Your task to perform on an android device: choose inbox layout in the gmail app Image 0: 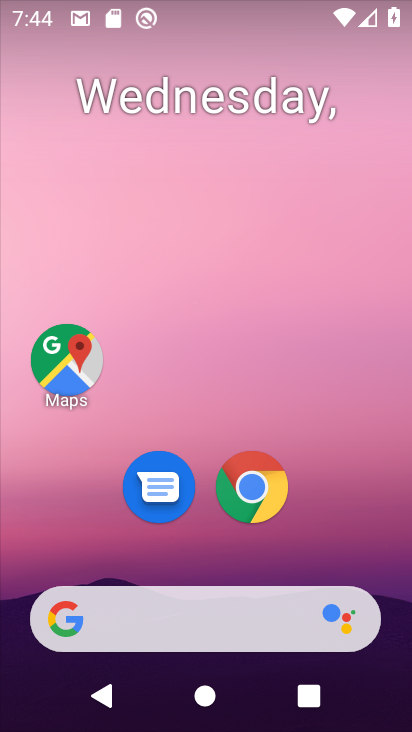
Step 0: drag from (332, 570) to (167, 266)
Your task to perform on an android device: choose inbox layout in the gmail app Image 1: 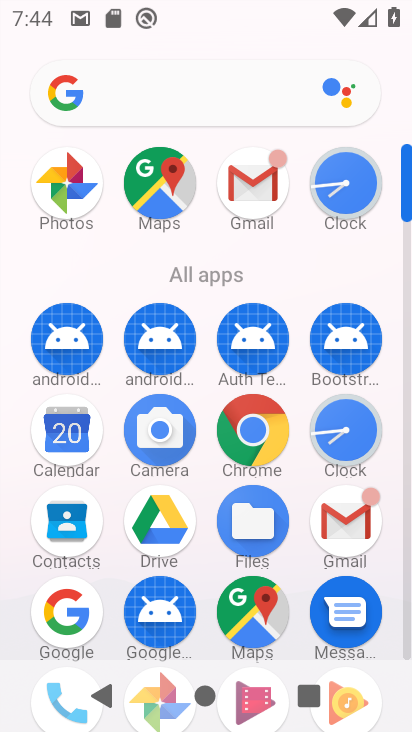
Step 1: drag from (236, 358) to (22, 366)
Your task to perform on an android device: choose inbox layout in the gmail app Image 2: 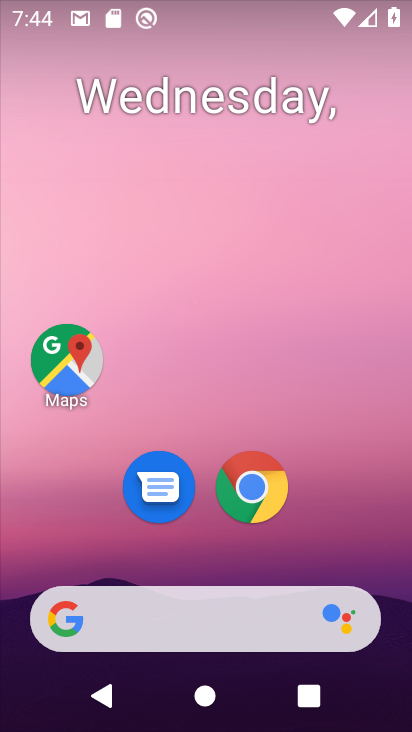
Step 2: click (341, 516)
Your task to perform on an android device: choose inbox layout in the gmail app Image 3: 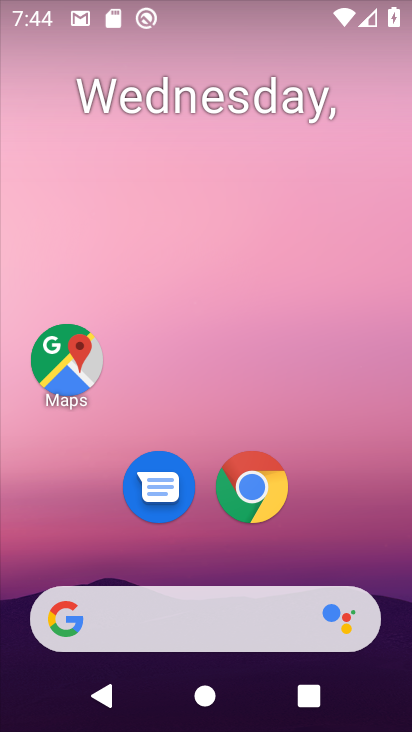
Step 3: drag from (337, 699) to (319, 179)
Your task to perform on an android device: choose inbox layout in the gmail app Image 4: 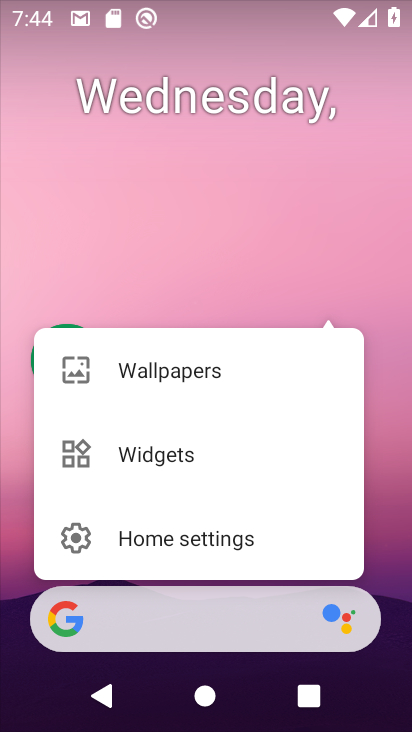
Step 4: drag from (342, 509) to (276, 94)
Your task to perform on an android device: choose inbox layout in the gmail app Image 5: 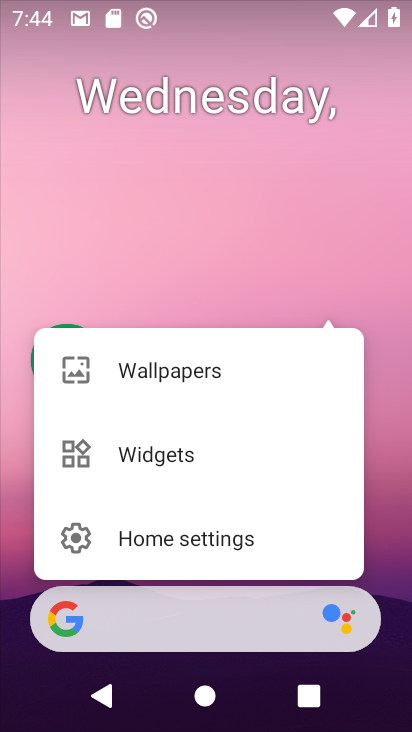
Step 5: drag from (344, 466) to (216, 10)
Your task to perform on an android device: choose inbox layout in the gmail app Image 6: 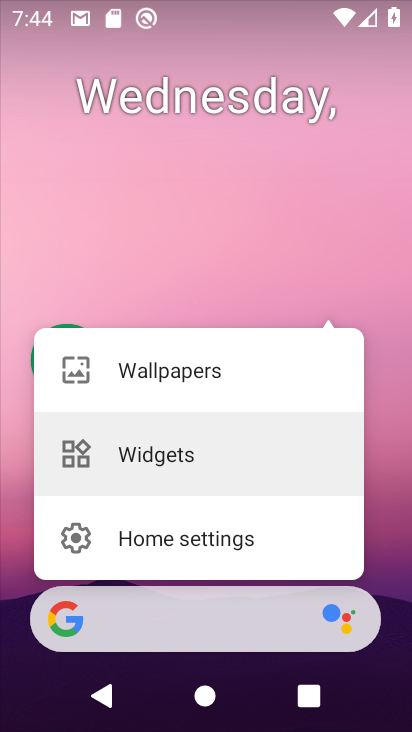
Step 6: drag from (223, 62) to (285, 248)
Your task to perform on an android device: choose inbox layout in the gmail app Image 7: 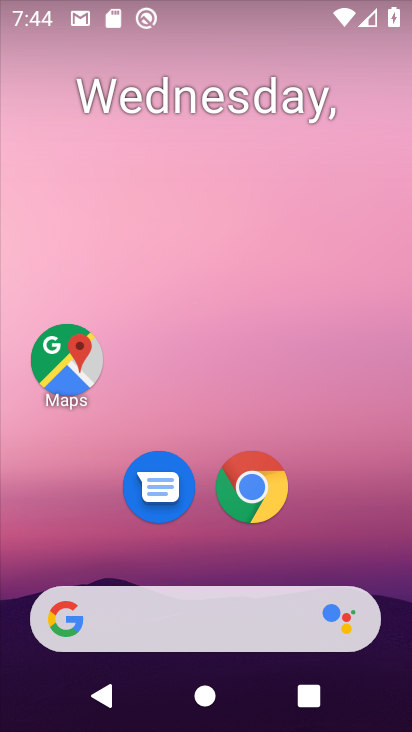
Step 7: drag from (326, 499) to (215, 54)
Your task to perform on an android device: choose inbox layout in the gmail app Image 8: 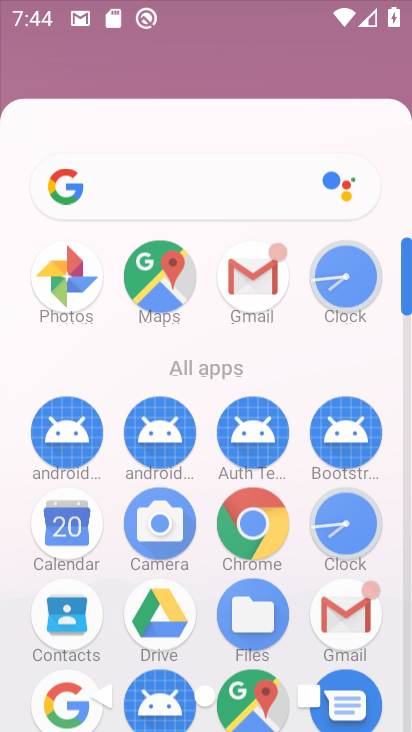
Step 8: drag from (112, 384) to (51, 93)
Your task to perform on an android device: choose inbox layout in the gmail app Image 9: 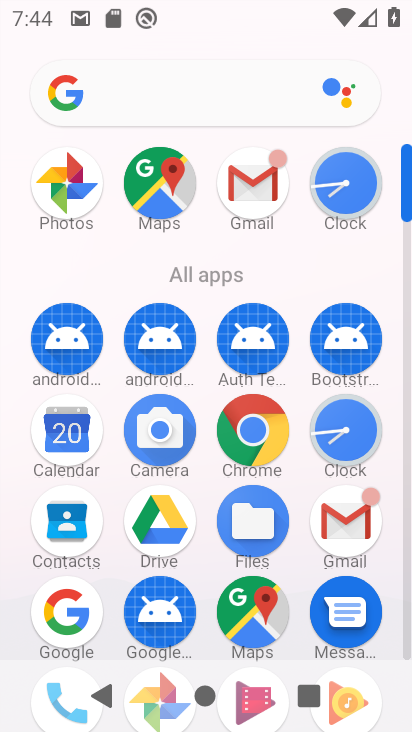
Step 9: click (347, 521)
Your task to perform on an android device: choose inbox layout in the gmail app Image 10: 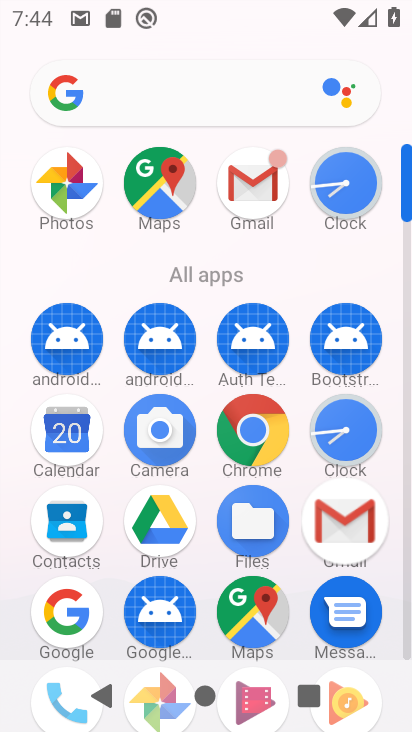
Step 10: click (342, 520)
Your task to perform on an android device: choose inbox layout in the gmail app Image 11: 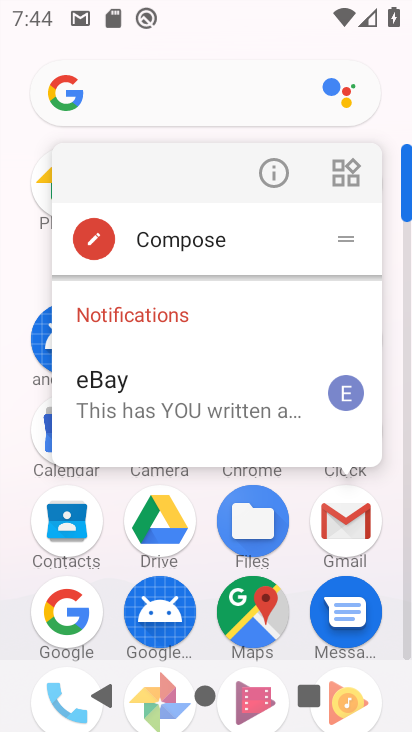
Step 11: click (341, 515)
Your task to perform on an android device: choose inbox layout in the gmail app Image 12: 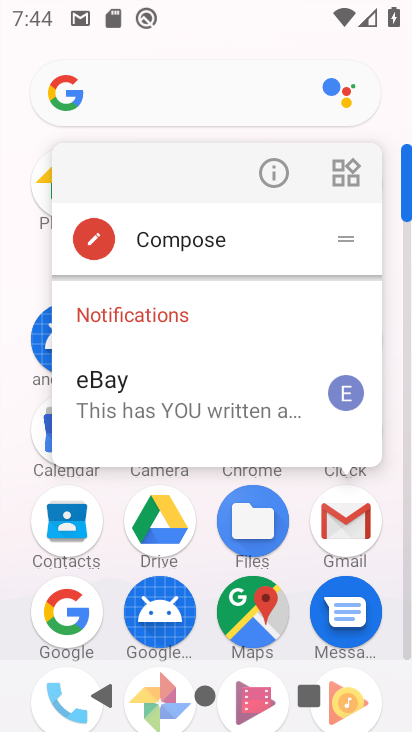
Step 12: click (341, 519)
Your task to perform on an android device: choose inbox layout in the gmail app Image 13: 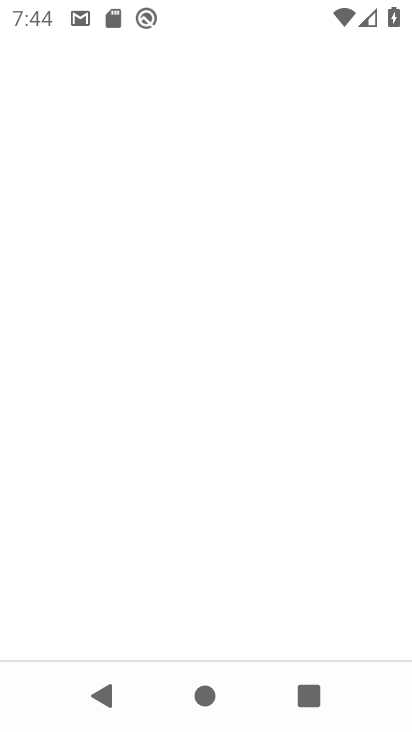
Step 13: click (338, 502)
Your task to perform on an android device: choose inbox layout in the gmail app Image 14: 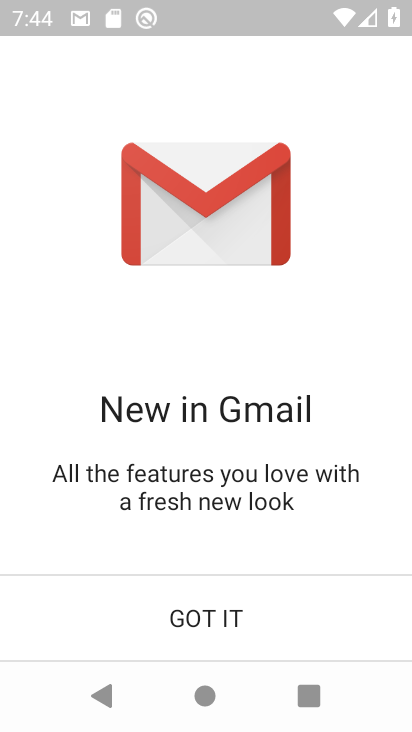
Step 14: click (182, 616)
Your task to perform on an android device: choose inbox layout in the gmail app Image 15: 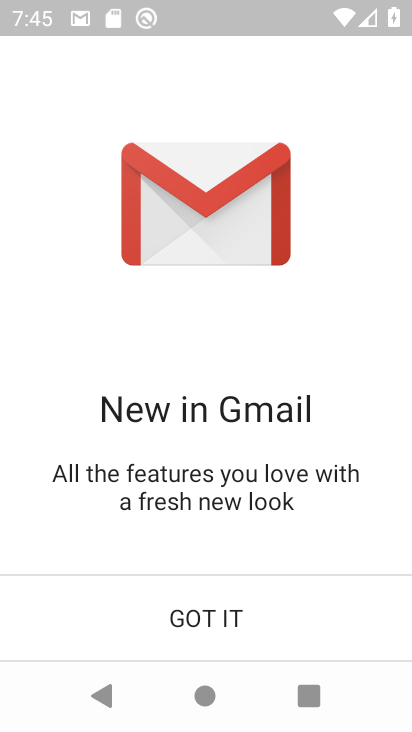
Step 15: click (189, 611)
Your task to perform on an android device: choose inbox layout in the gmail app Image 16: 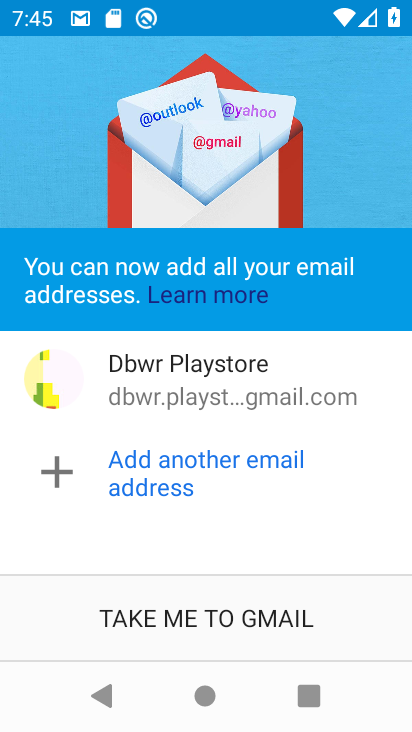
Step 16: click (190, 612)
Your task to perform on an android device: choose inbox layout in the gmail app Image 17: 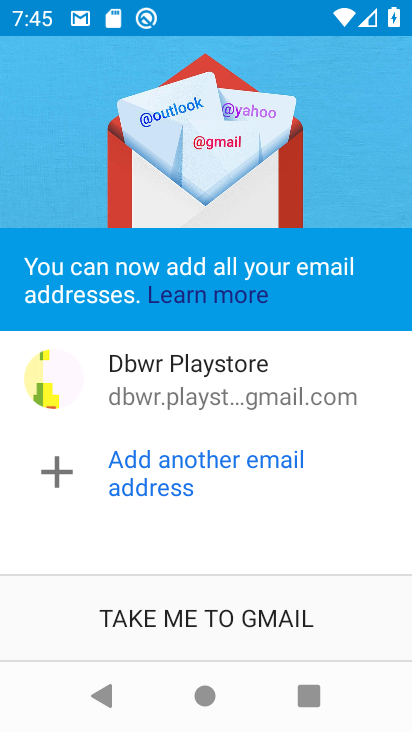
Step 17: click (191, 613)
Your task to perform on an android device: choose inbox layout in the gmail app Image 18: 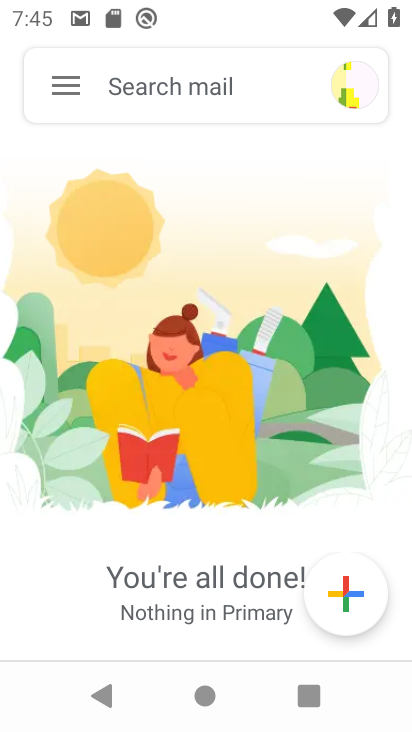
Step 18: click (73, 85)
Your task to perform on an android device: choose inbox layout in the gmail app Image 19: 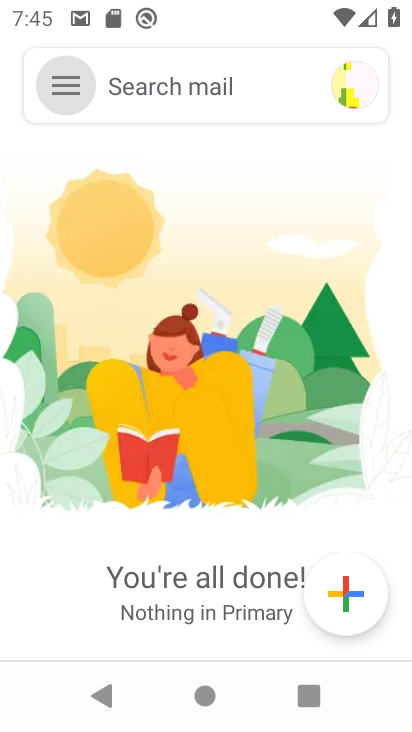
Step 19: click (73, 85)
Your task to perform on an android device: choose inbox layout in the gmail app Image 20: 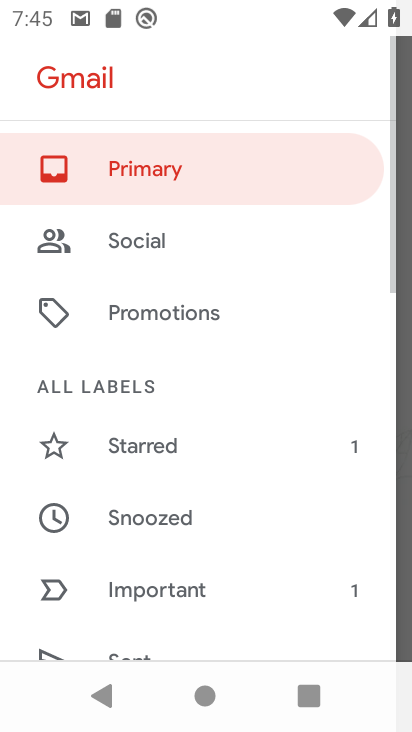
Step 20: drag from (138, 522) to (191, 282)
Your task to perform on an android device: choose inbox layout in the gmail app Image 21: 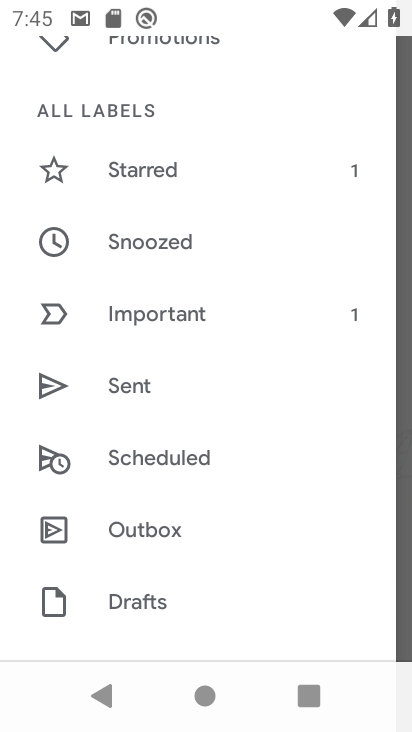
Step 21: drag from (249, 551) to (143, 209)
Your task to perform on an android device: choose inbox layout in the gmail app Image 22: 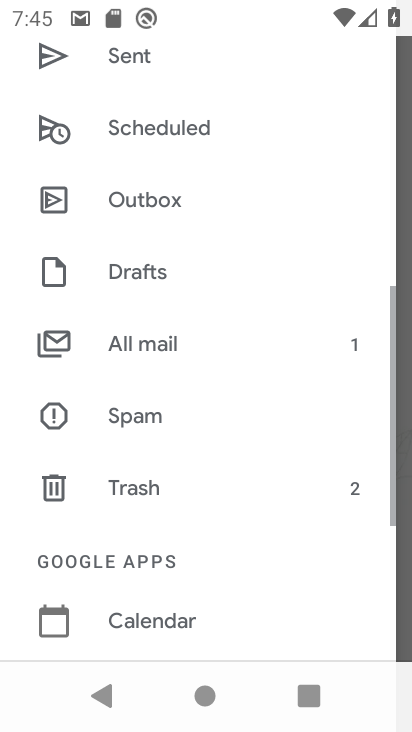
Step 22: drag from (122, 376) to (147, 248)
Your task to perform on an android device: choose inbox layout in the gmail app Image 23: 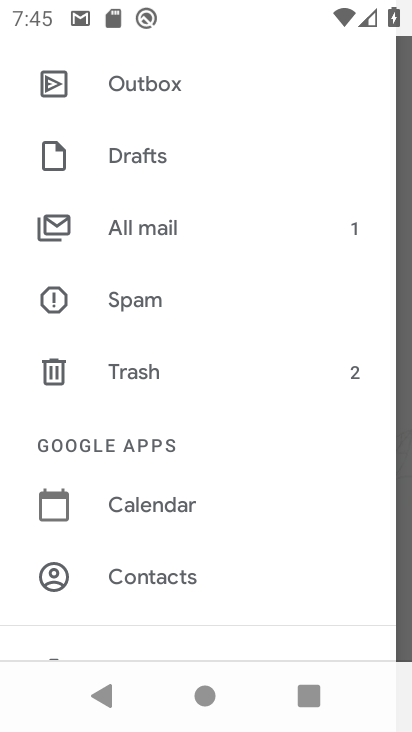
Step 23: click (136, 227)
Your task to perform on an android device: choose inbox layout in the gmail app Image 24: 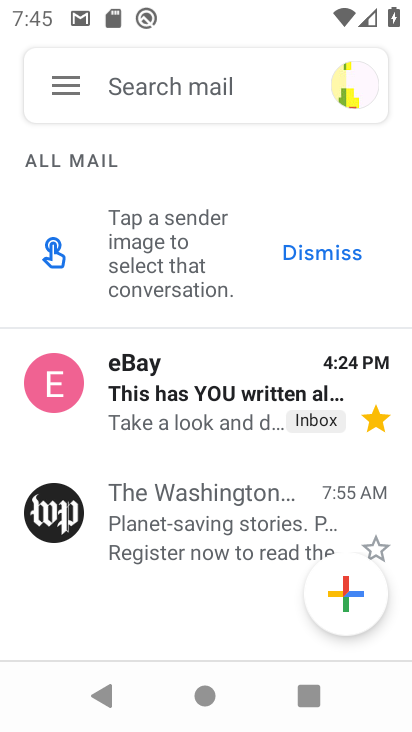
Step 24: press back button
Your task to perform on an android device: choose inbox layout in the gmail app Image 25: 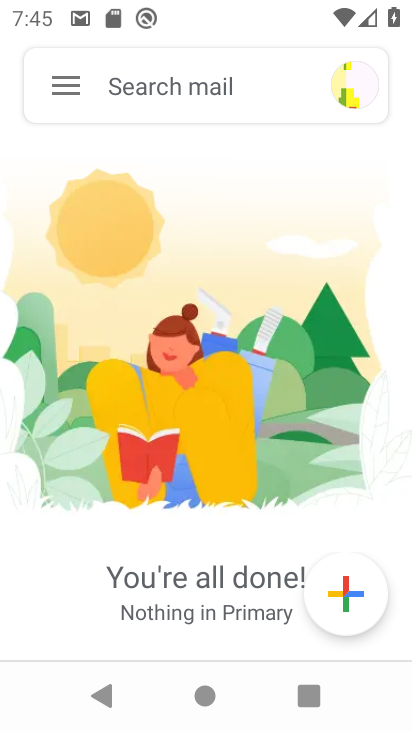
Step 25: click (63, 94)
Your task to perform on an android device: choose inbox layout in the gmail app Image 26: 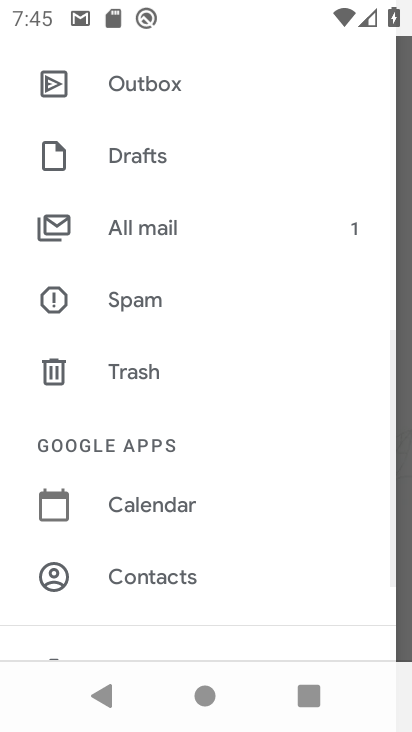
Step 26: drag from (150, 569) to (192, 153)
Your task to perform on an android device: choose inbox layout in the gmail app Image 27: 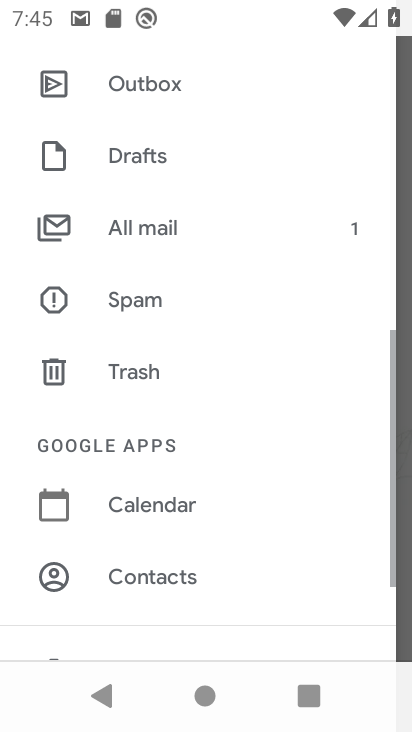
Step 27: drag from (221, 482) to (223, 118)
Your task to perform on an android device: choose inbox layout in the gmail app Image 28: 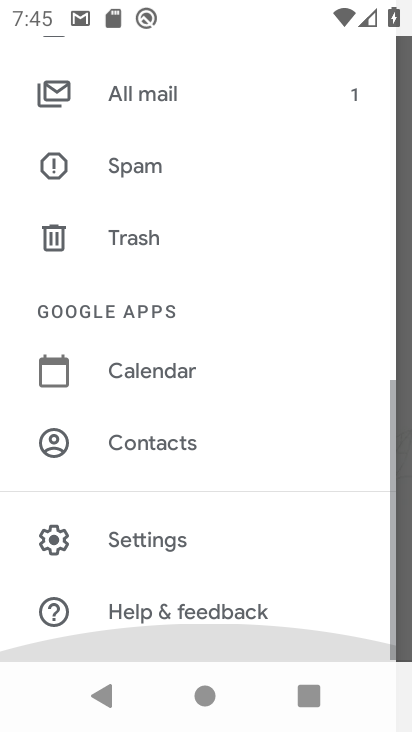
Step 28: drag from (251, 418) to (269, 158)
Your task to perform on an android device: choose inbox layout in the gmail app Image 29: 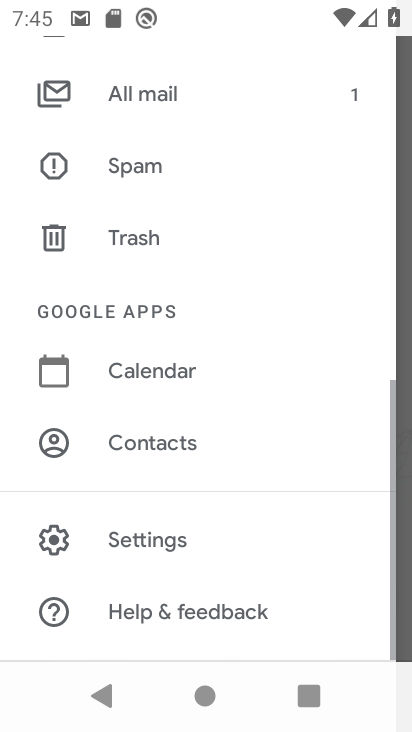
Step 29: click (155, 531)
Your task to perform on an android device: choose inbox layout in the gmail app Image 30: 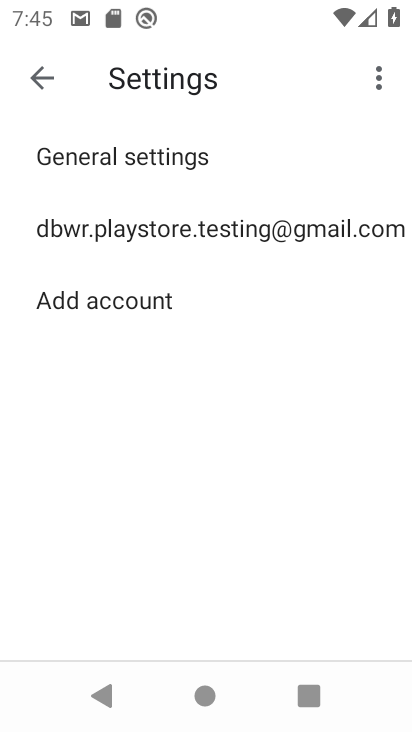
Step 30: click (211, 236)
Your task to perform on an android device: choose inbox layout in the gmail app Image 31: 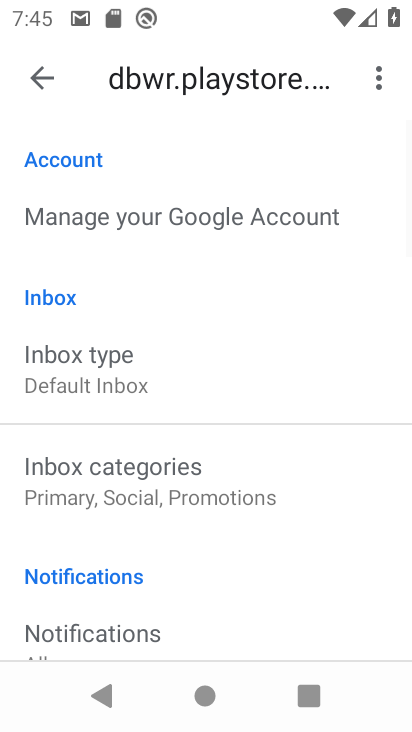
Step 31: click (77, 369)
Your task to perform on an android device: choose inbox layout in the gmail app Image 32: 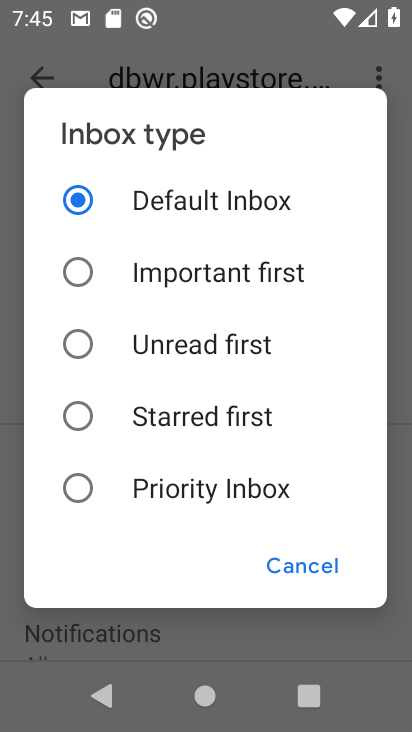
Step 32: click (298, 562)
Your task to perform on an android device: choose inbox layout in the gmail app Image 33: 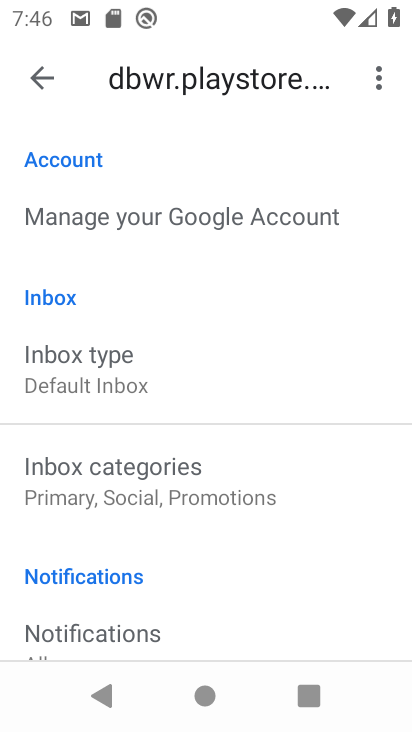
Step 33: click (93, 478)
Your task to perform on an android device: choose inbox layout in the gmail app Image 34: 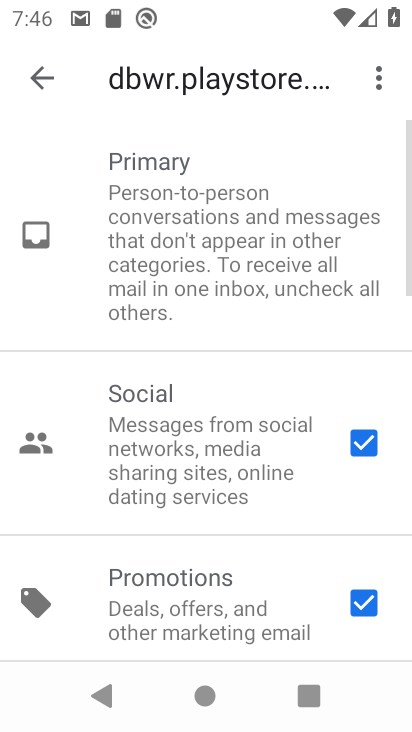
Step 34: drag from (149, 309) to (240, 162)
Your task to perform on an android device: choose inbox layout in the gmail app Image 35: 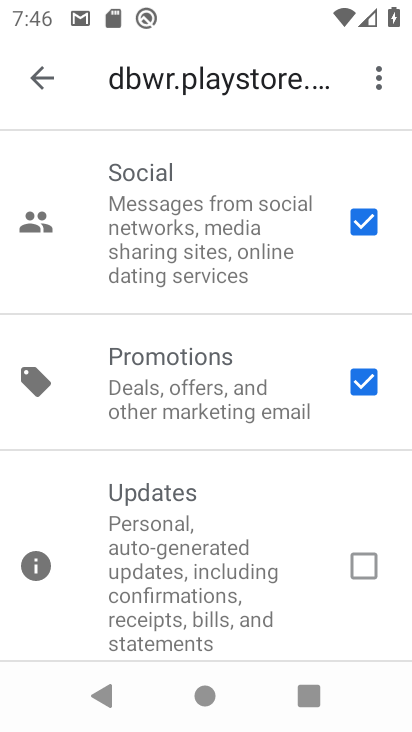
Step 35: click (41, 72)
Your task to perform on an android device: choose inbox layout in the gmail app Image 36: 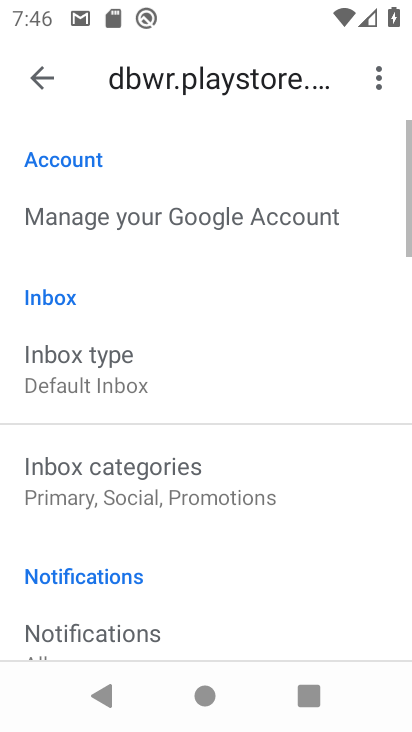
Step 36: drag from (105, 377) to (186, 273)
Your task to perform on an android device: choose inbox layout in the gmail app Image 37: 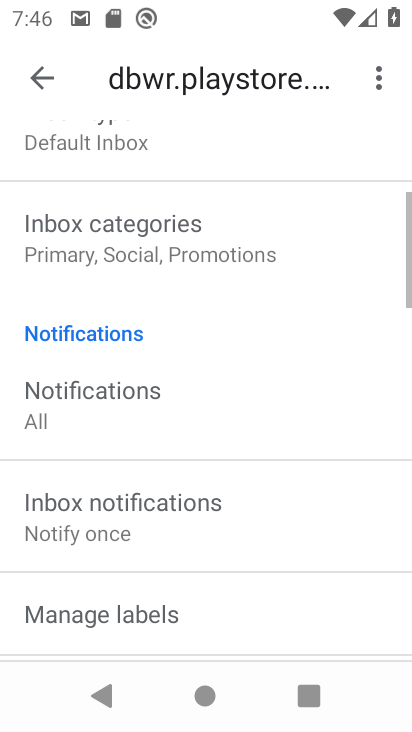
Step 37: drag from (188, 488) to (239, 186)
Your task to perform on an android device: choose inbox layout in the gmail app Image 38: 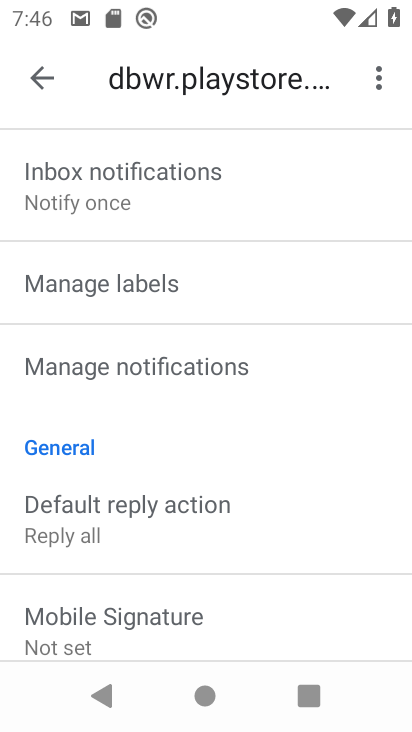
Step 38: click (35, 82)
Your task to perform on an android device: choose inbox layout in the gmail app Image 39: 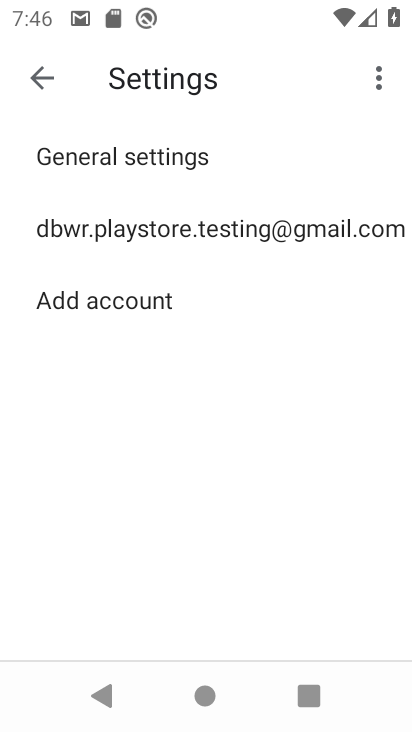
Step 39: click (35, 74)
Your task to perform on an android device: choose inbox layout in the gmail app Image 40: 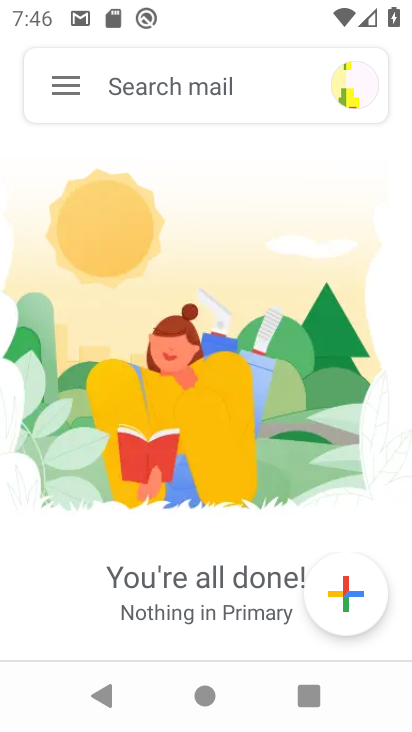
Step 40: click (58, 88)
Your task to perform on an android device: choose inbox layout in the gmail app Image 41: 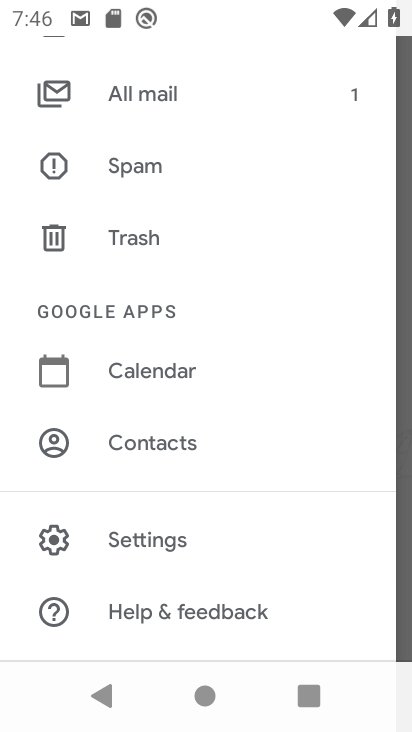
Step 41: click (122, 99)
Your task to perform on an android device: choose inbox layout in the gmail app Image 42: 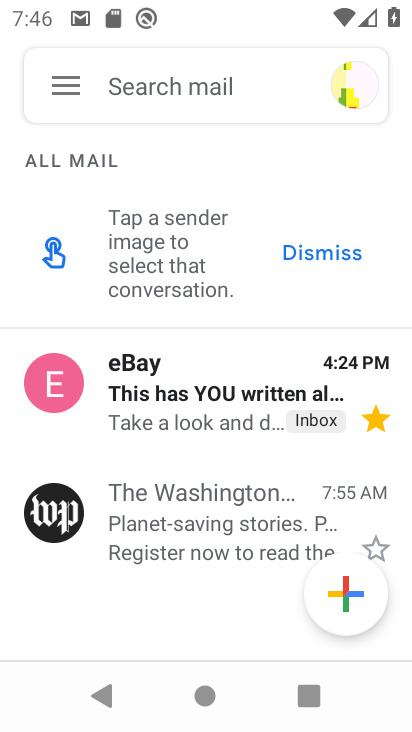
Step 42: click (167, 397)
Your task to perform on an android device: choose inbox layout in the gmail app Image 43: 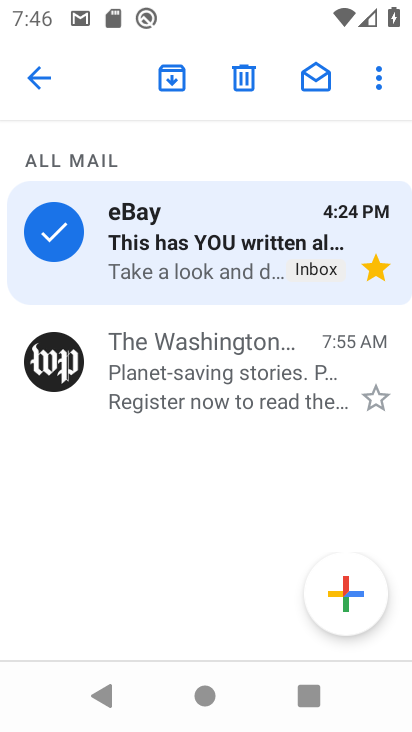
Step 43: click (376, 73)
Your task to perform on an android device: choose inbox layout in the gmail app Image 44: 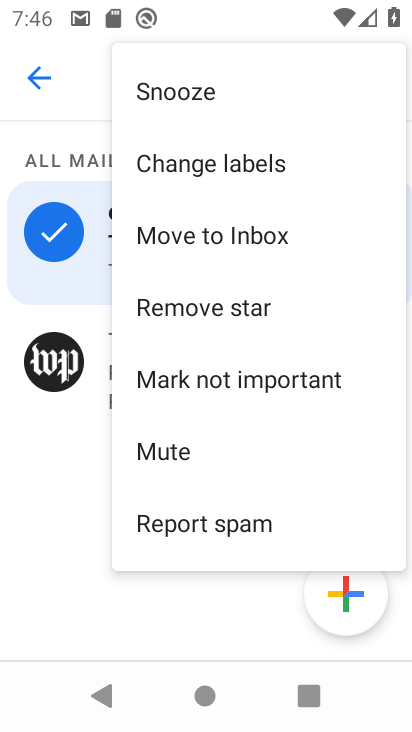
Step 44: click (189, 168)
Your task to perform on an android device: choose inbox layout in the gmail app Image 45: 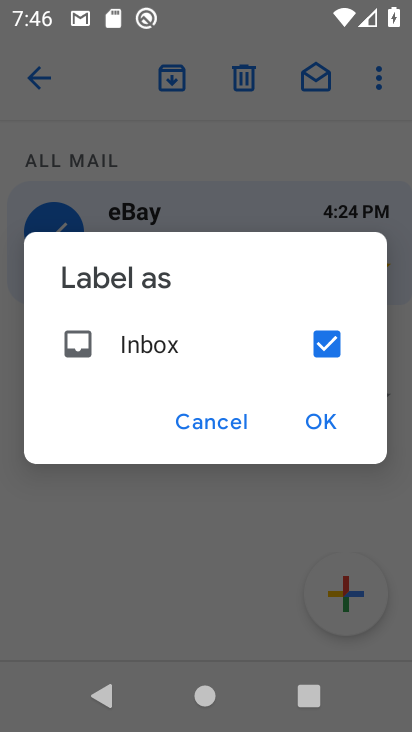
Step 45: click (318, 406)
Your task to perform on an android device: choose inbox layout in the gmail app Image 46: 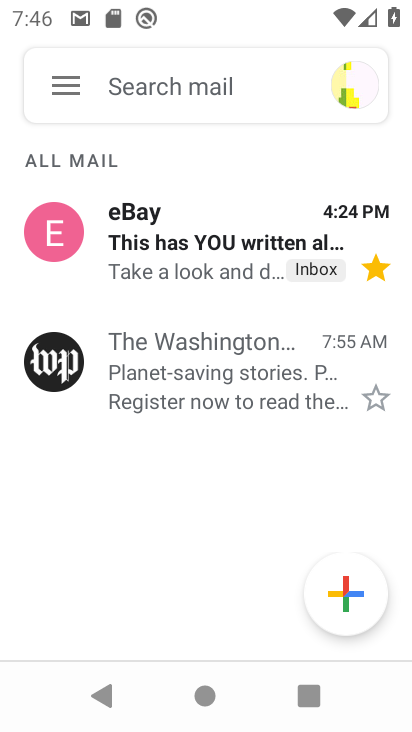
Step 46: task complete